Your task to perform on an android device: add a label to a message in the gmail app Image 0: 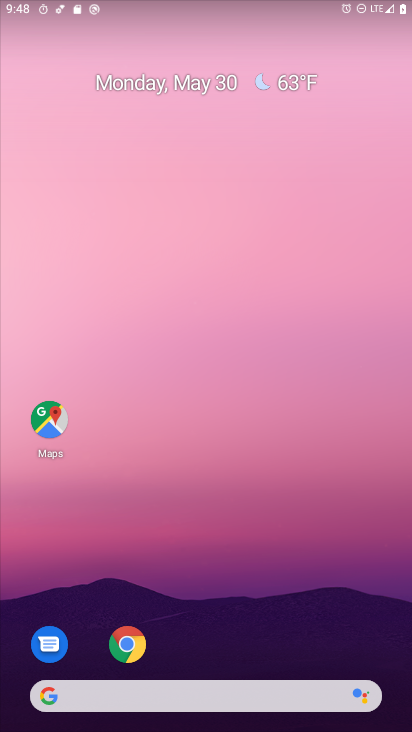
Step 0: drag from (222, 611) to (310, 48)
Your task to perform on an android device: add a label to a message in the gmail app Image 1: 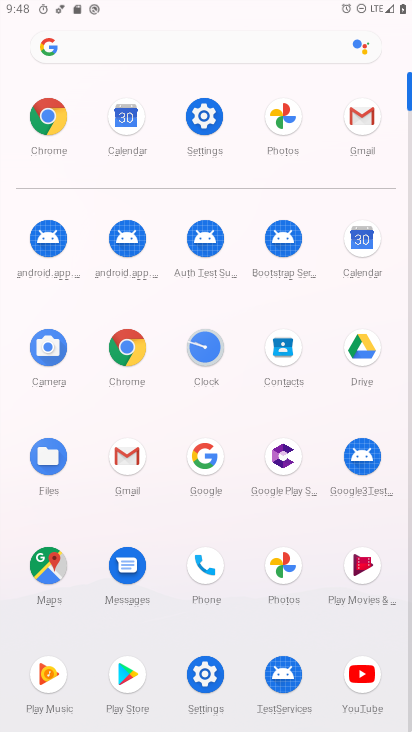
Step 1: click (130, 456)
Your task to perform on an android device: add a label to a message in the gmail app Image 2: 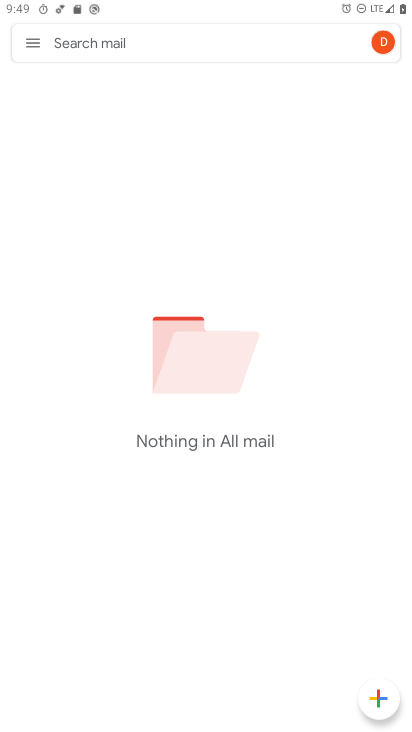
Step 2: task complete